Your task to perform on an android device: turn smart compose on in the gmail app Image 0: 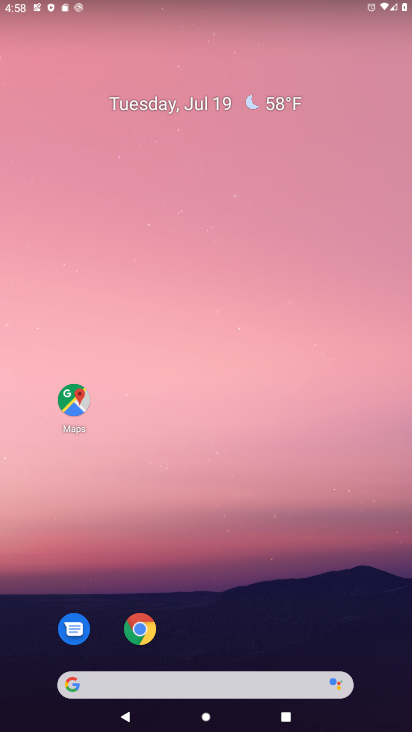
Step 0: drag from (168, 186) to (160, 133)
Your task to perform on an android device: turn smart compose on in the gmail app Image 1: 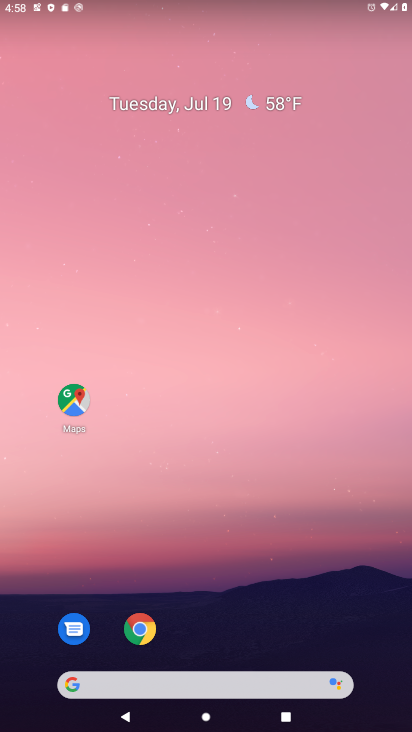
Step 1: drag from (220, 615) to (187, 155)
Your task to perform on an android device: turn smart compose on in the gmail app Image 2: 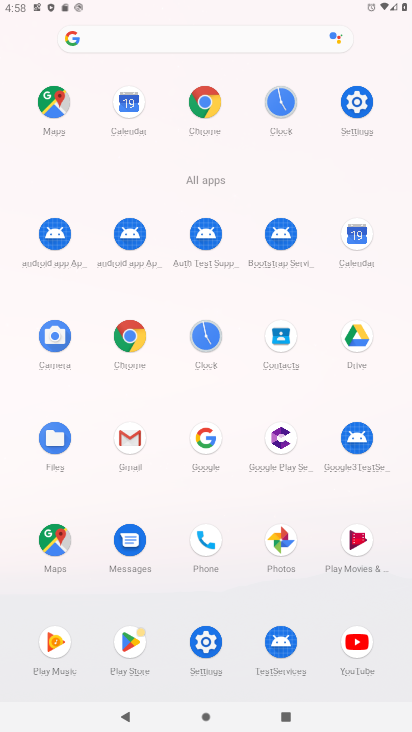
Step 2: drag from (179, 583) to (186, 116)
Your task to perform on an android device: turn smart compose on in the gmail app Image 3: 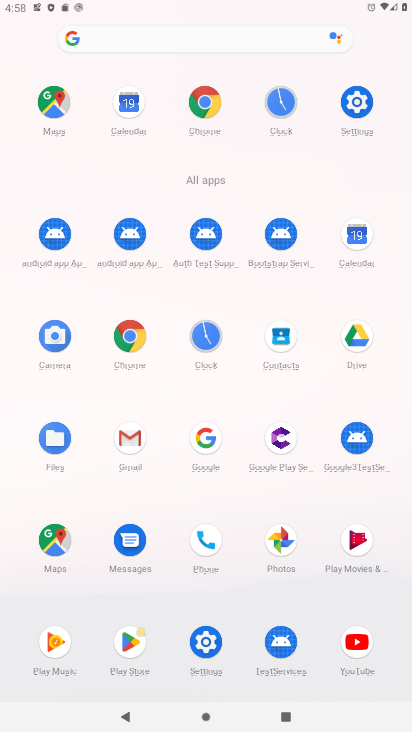
Step 3: click (127, 441)
Your task to perform on an android device: turn smart compose on in the gmail app Image 4: 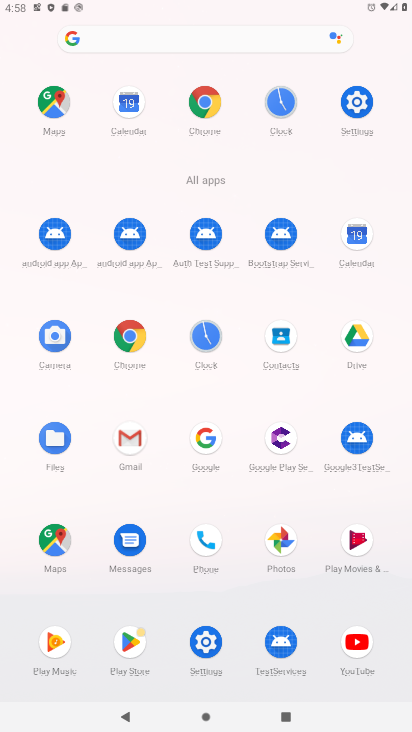
Step 4: click (126, 440)
Your task to perform on an android device: turn smart compose on in the gmail app Image 5: 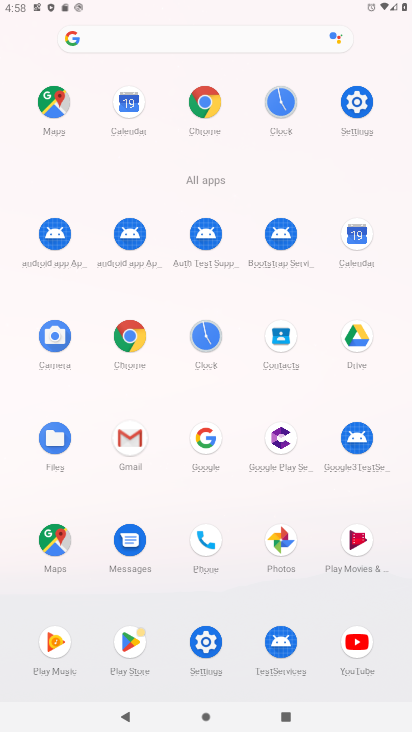
Step 5: click (126, 440)
Your task to perform on an android device: turn smart compose on in the gmail app Image 6: 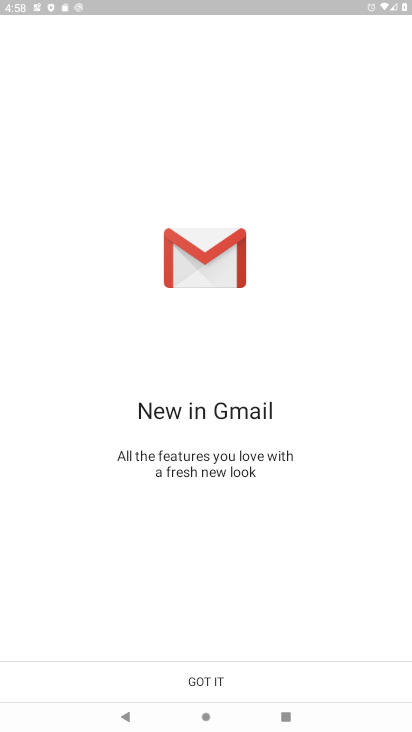
Step 6: click (215, 677)
Your task to perform on an android device: turn smart compose on in the gmail app Image 7: 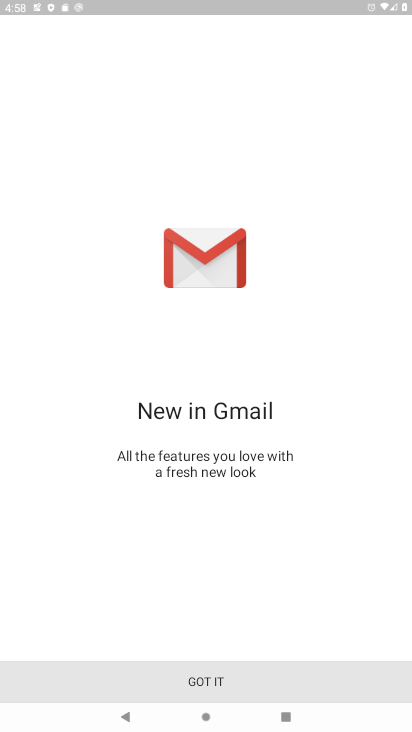
Step 7: click (215, 681)
Your task to perform on an android device: turn smart compose on in the gmail app Image 8: 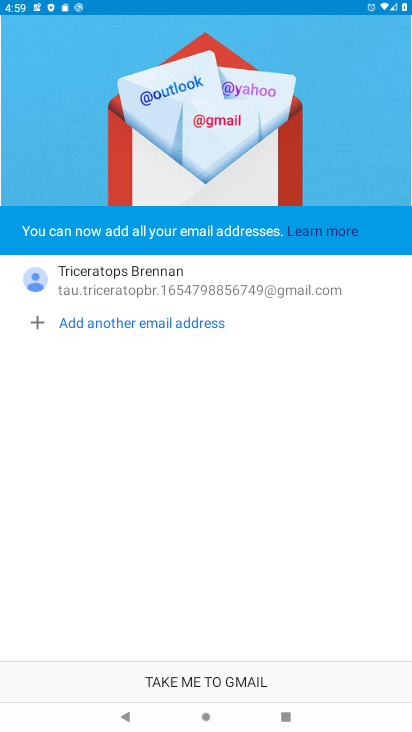
Step 8: click (178, 675)
Your task to perform on an android device: turn smart compose on in the gmail app Image 9: 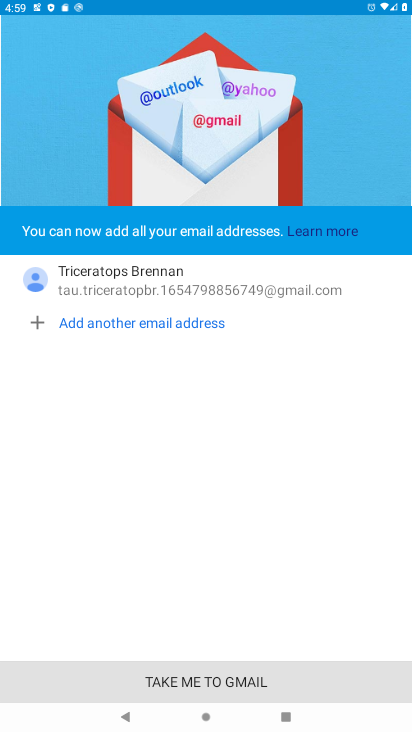
Step 9: click (176, 675)
Your task to perform on an android device: turn smart compose on in the gmail app Image 10: 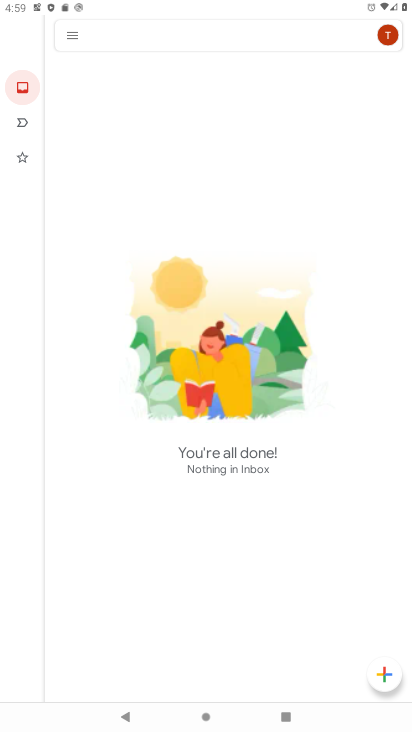
Step 10: click (69, 43)
Your task to perform on an android device: turn smart compose on in the gmail app Image 11: 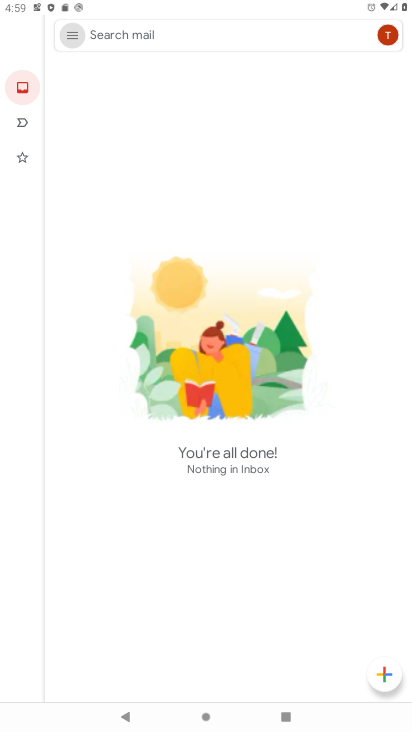
Step 11: click (67, 42)
Your task to perform on an android device: turn smart compose on in the gmail app Image 12: 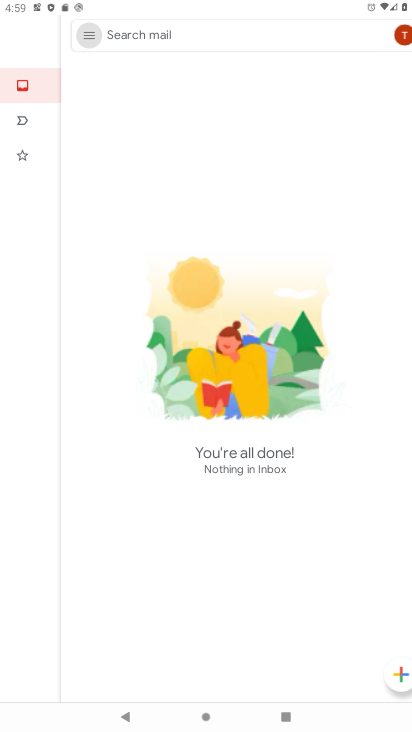
Step 12: click (67, 35)
Your task to perform on an android device: turn smart compose on in the gmail app Image 13: 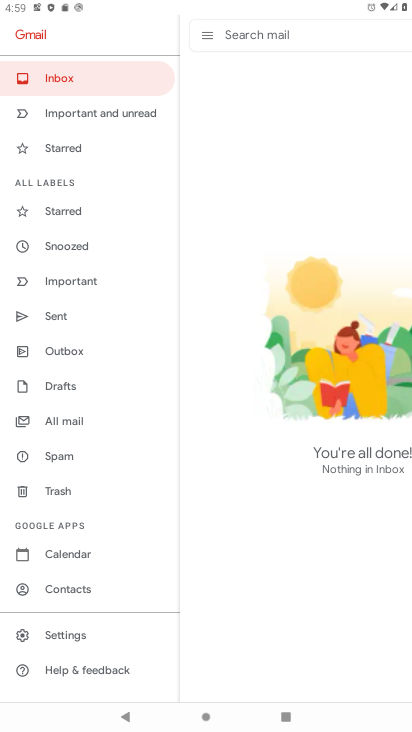
Step 13: click (59, 634)
Your task to perform on an android device: turn smart compose on in the gmail app Image 14: 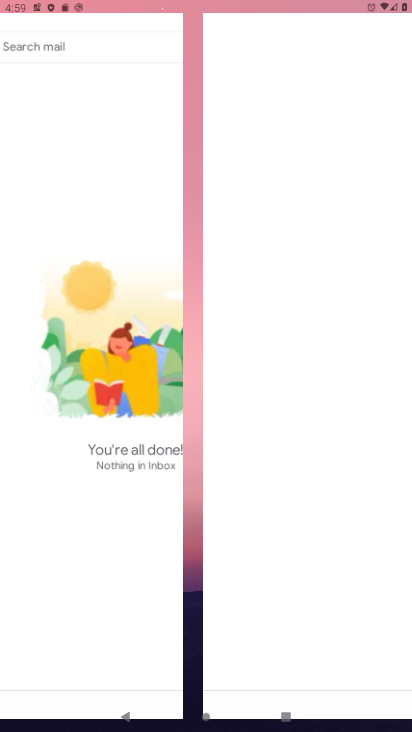
Step 14: click (57, 631)
Your task to perform on an android device: turn smart compose on in the gmail app Image 15: 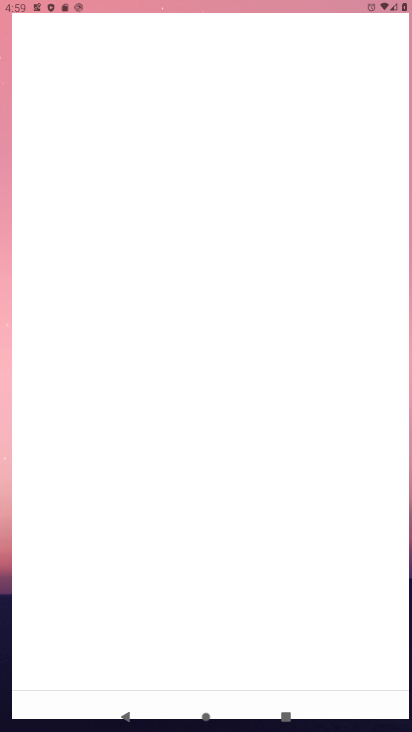
Step 15: click (56, 631)
Your task to perform on an android device: turn smart compose on in the gmail app Image 16: 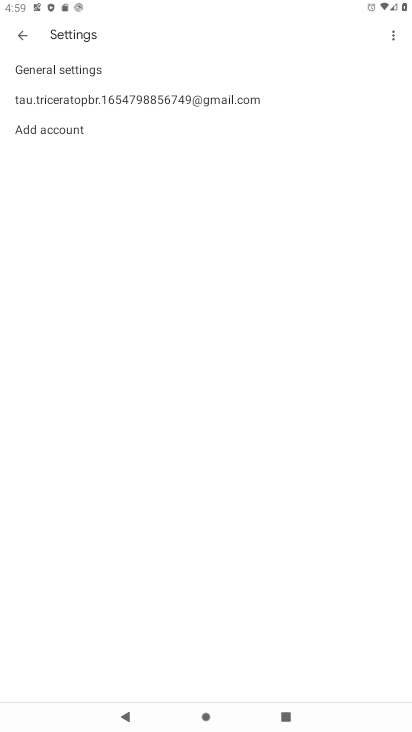
Step 16: click (56, 630)
Your task to perform on an android device: turn smart compose on in the gmail app Image 17: 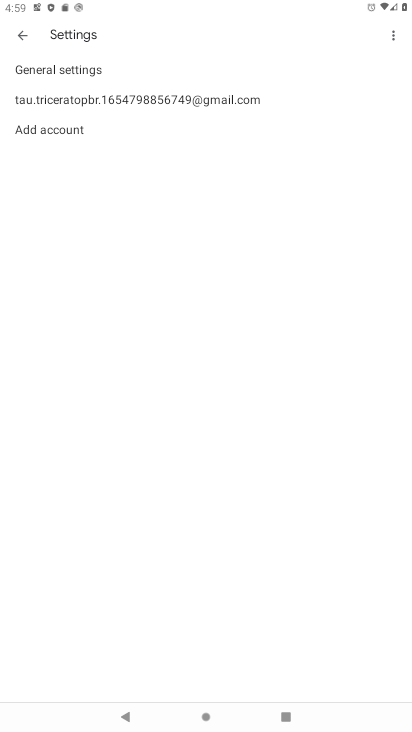
Step 17: click (97, 95)
Your task to perform on an android device: turn smart compose on in the gmail app Image 18: 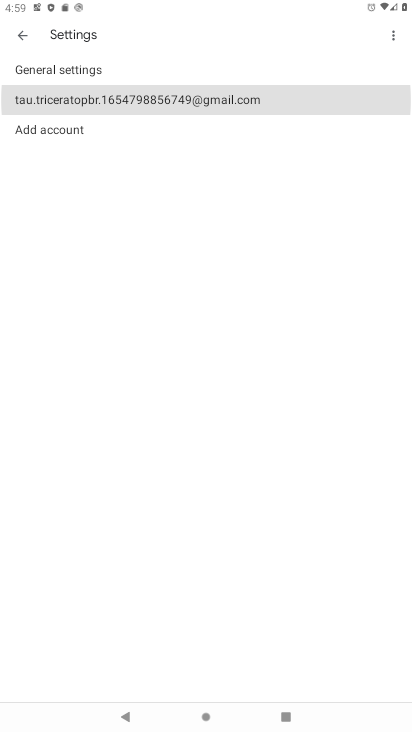
Step 18: click (97, 95)
Your task to perform on an android device: turn smart compose on in the gmail app Image 19: 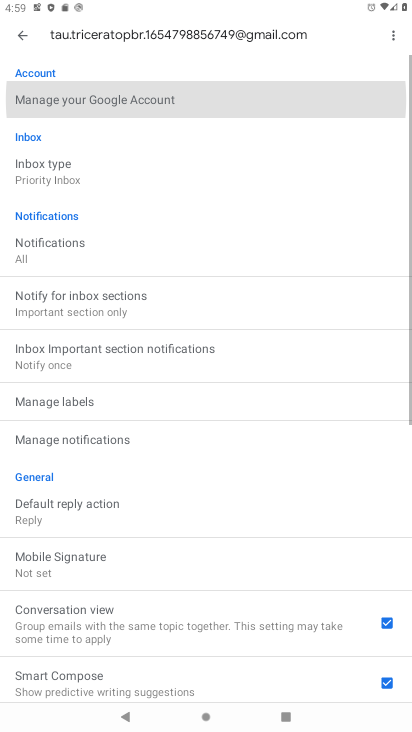
Step 19: click (97, 95)
Your task to perform on an android device: turn smart compose on in the gmail app Image 20: 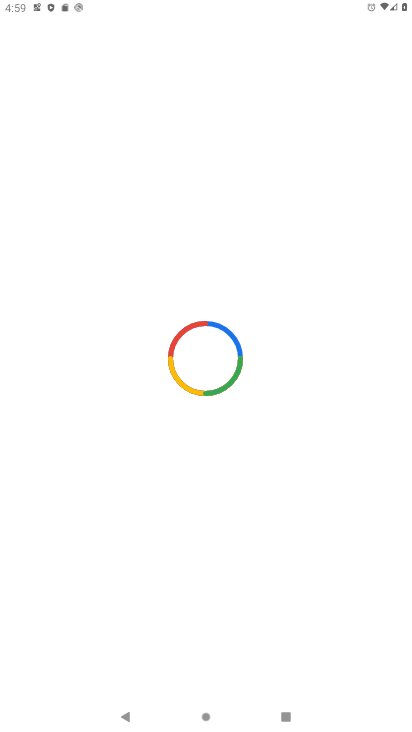
Step 20: press back button
Your task to perform on an android device: turn smart compose on in the gmail app Image 21: 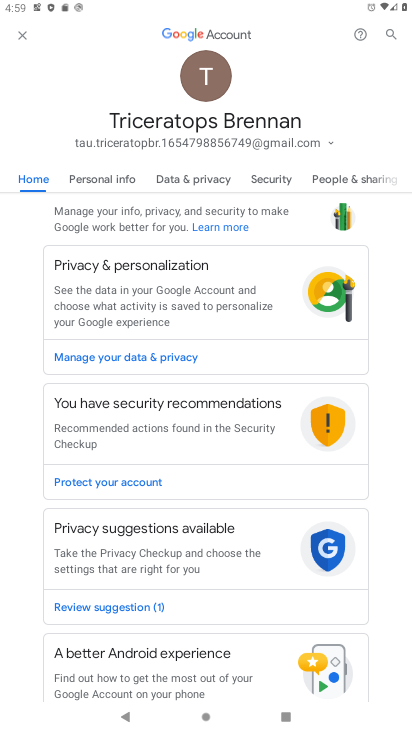
Step 21: click (17, 35)
Your task to perform on an android device: turn smart compose on in the gmail app Image 22: 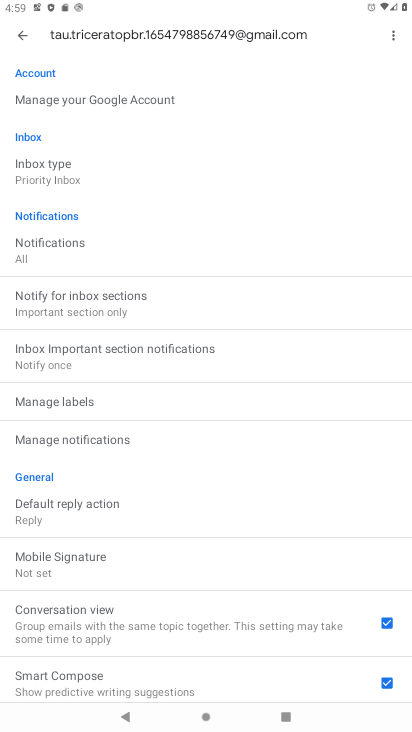
Step 22: click (98, 682)
Your task to perform on an android device: turn smart compose on in the gmail app Image 23: 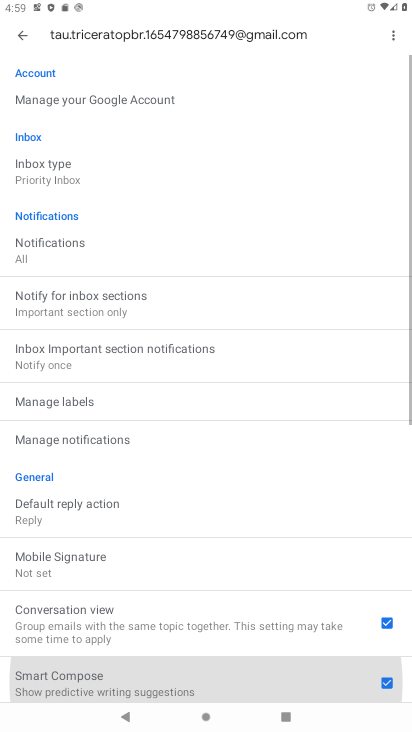
Step 23: click (98, 682)
Your task to perform on an android device: turn smart compose on in the gmail app Image 24: 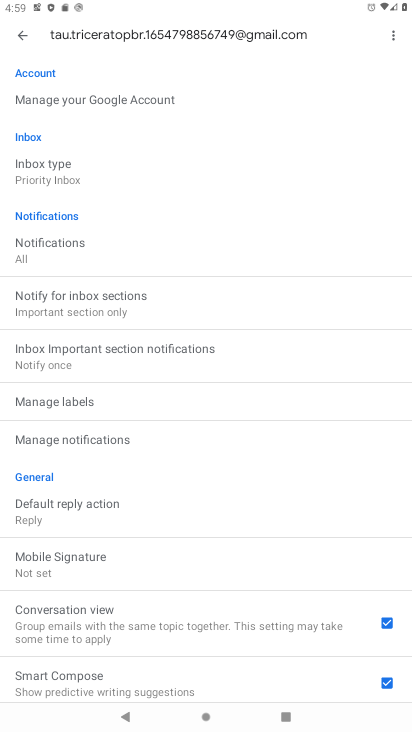
Step 24: task complete